Your task to perform on an android device: Go to Yahoo.com Image 0: 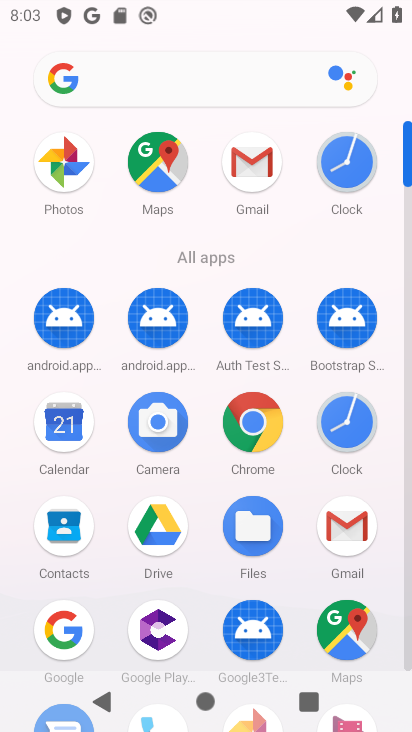
Step 0: press home button
Your task to perform on an android device: Go to Yahoo.com Image 1: 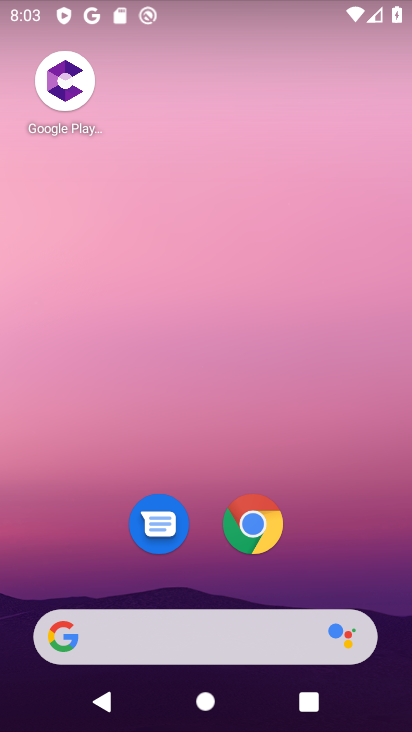
Step 1: click (248, 524)
Your task to perform on an android device: Go to Yahoo.com Image 2: 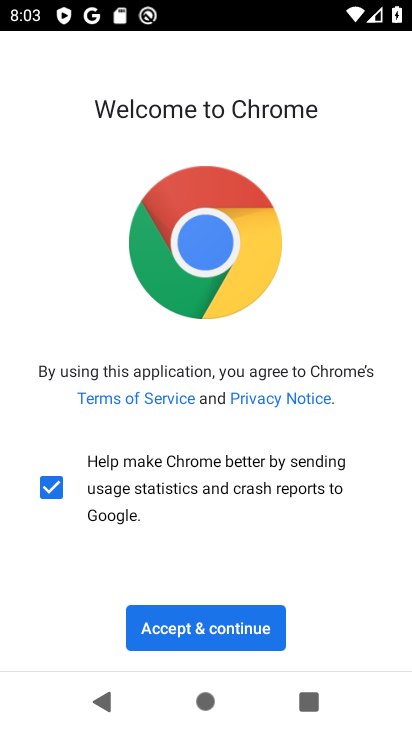
Step 2: click (222, 630)
Your task to perform on an android device: Go to Yahoo.com Image 3: 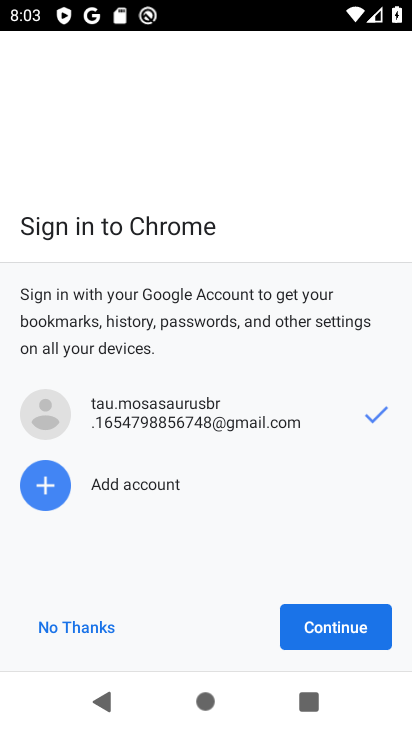
Step 3: click (341, 631)
Your task to perform on an android device: Go to Yahoo.com Image 4: 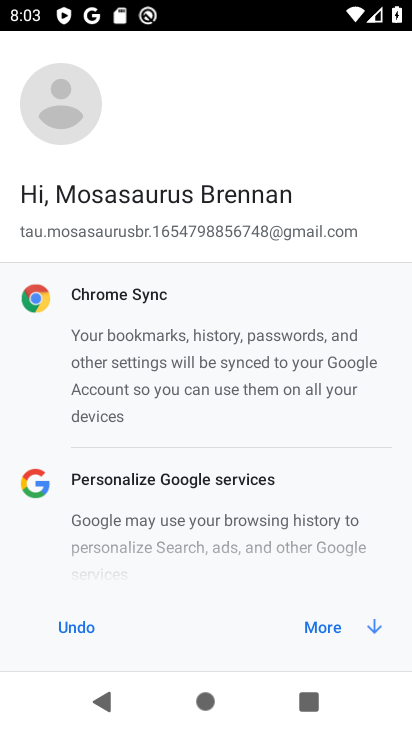
Step 4: click (321, 625)
Your task to perform on an android device: Go to Yahoo.com Image 5: 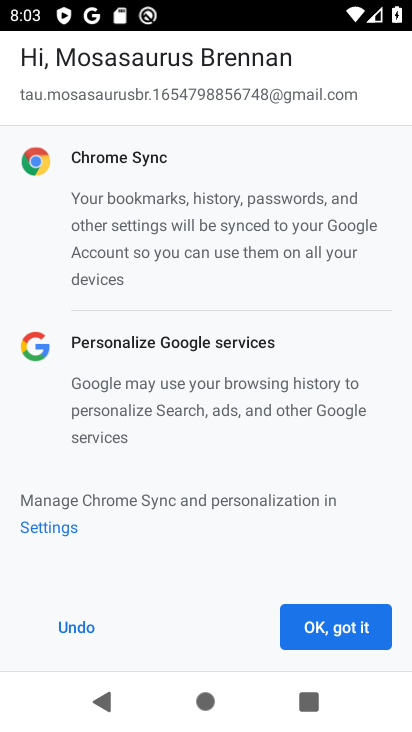
Step 5: click (319, 636)
Your task to perform on an android device: Go to Yahoo.com Image 6: 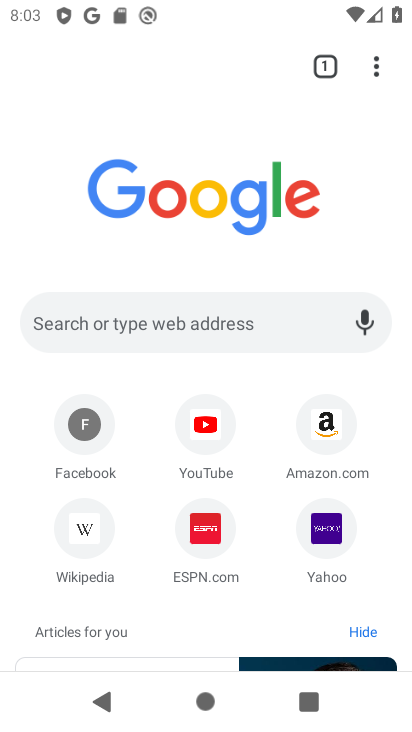
Step 6: click (320, 536)
Your task to perform on an android device: Go to Yahoo.com Image 7: 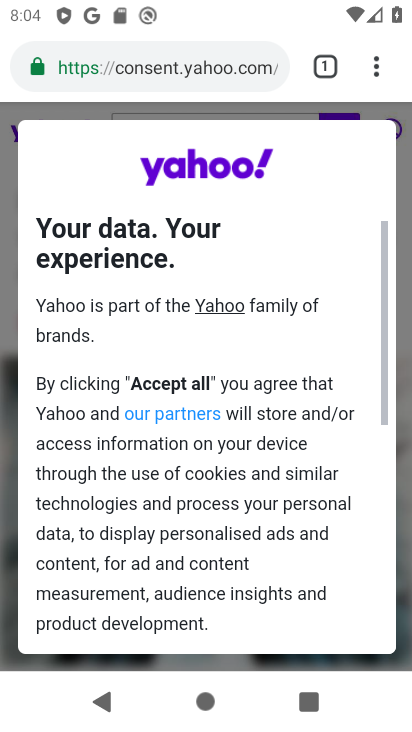
Step 7: drag from (201, 582) to (284, 159)
Your task to perform on an android device: Go to Yahoo.com Image 8: 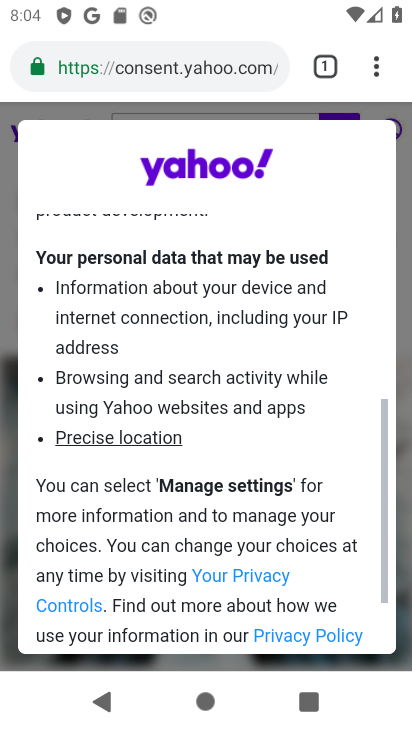
Step 8: drag from (254, 609) to (346, 120)
Your task to perform on an android device: Go to Yahoo.com Image 9: 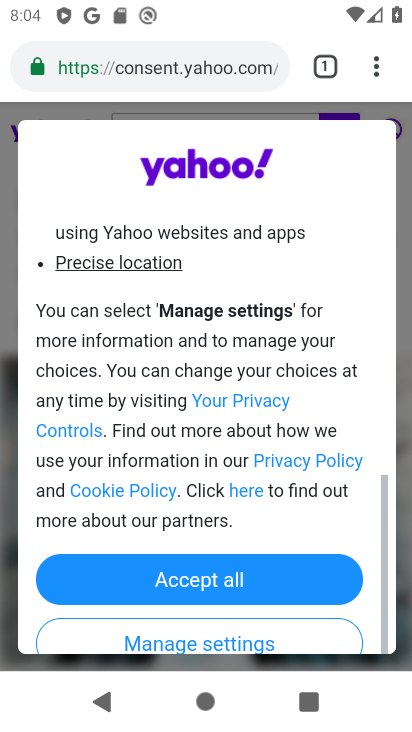
Step 9: click (233, 562)
Your task to perform on an android device: Go to Yahoo.com Image 10: 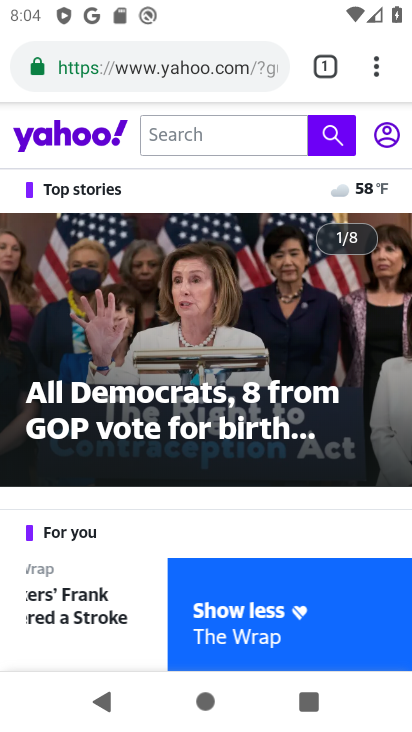
Step 10: task complete